Your task to perform on an android device: turn off airplane mode Image 0: 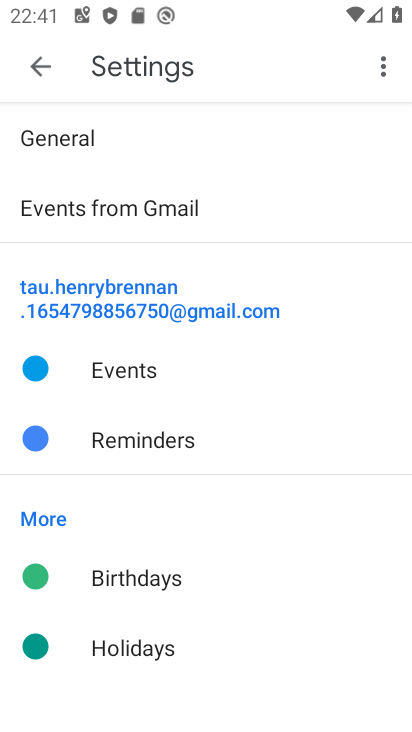
Step 0: press home button
Your task to perform on an android device: turn off airplane mode Image 1: 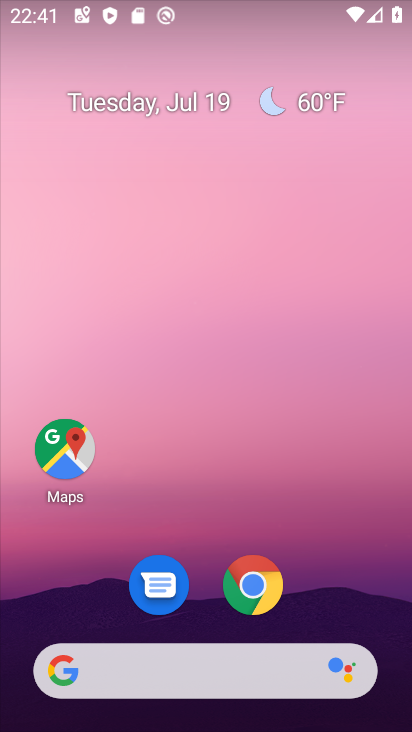
Step 1: drag from (326, 577) to (354, 41)
Your task to perform on an android device: turn off airplane mode Image 2: 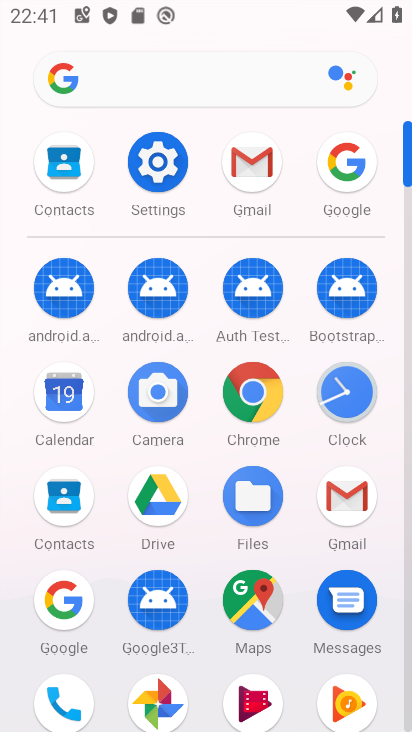
Step 2: click (158, 162)
Your task to perform on an android device: turn off airplane mode Image 3: 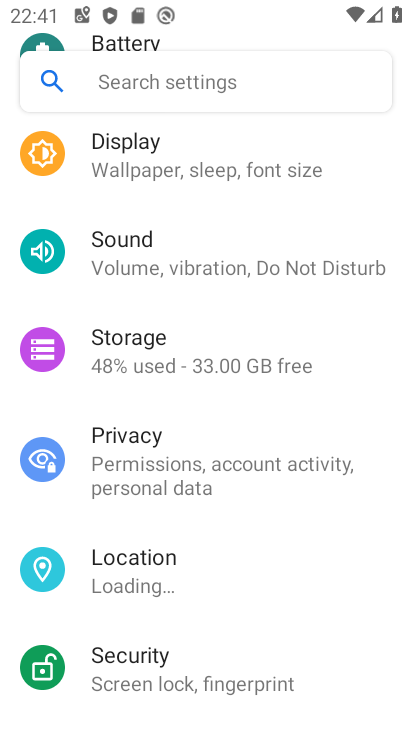
Step 3: drag from (203, 253) to (196, 666)
Your task to perform on an android device: turn off airplane mode Image 4: 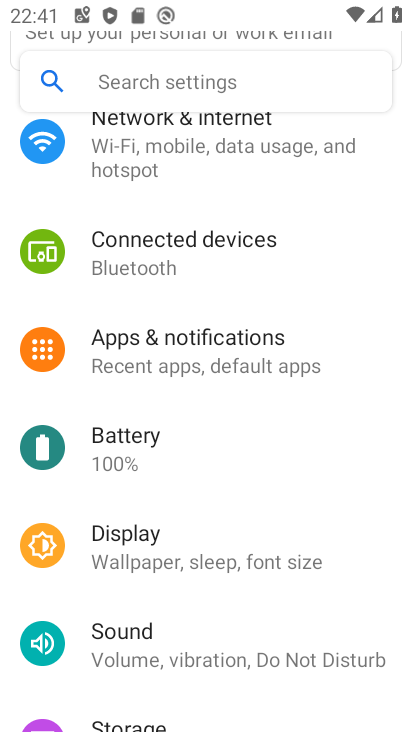
Step 4: drag from (227, 391) to (234, 600)
Your task to perform on an android device: turn off airplane mode Image 5: 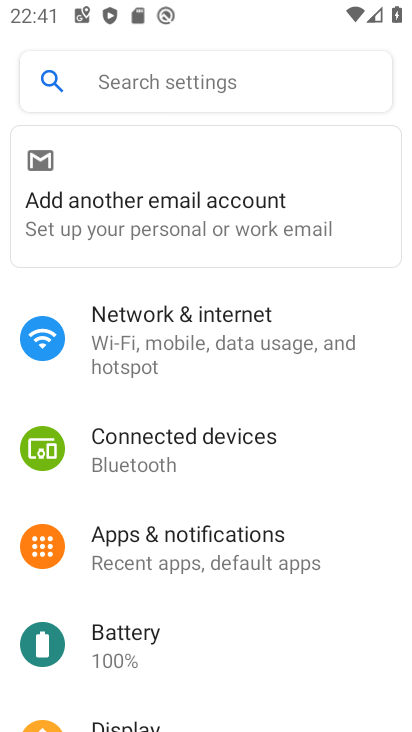
Step 5: click (239, 342)
Your task to perform on an android device: turn off airplane mode Image 6: 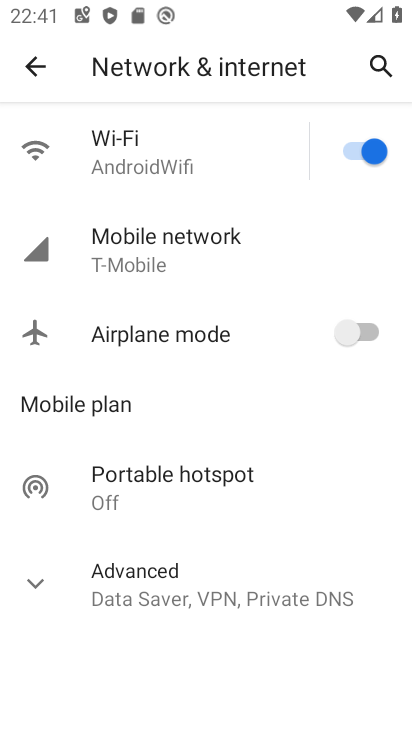
Step 6: task complete